Your task to perform on an android device: Open privacy settings Image 0: 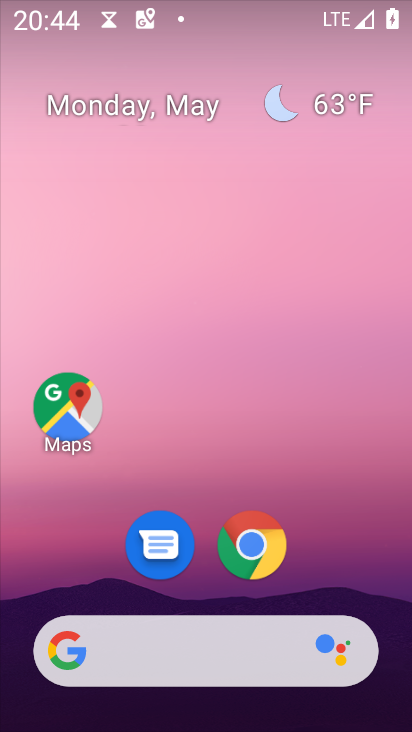
Step 0: drag from (198, 613) to (185, 140)
Your task to perform on an android device: Open privacy settings Image 1: 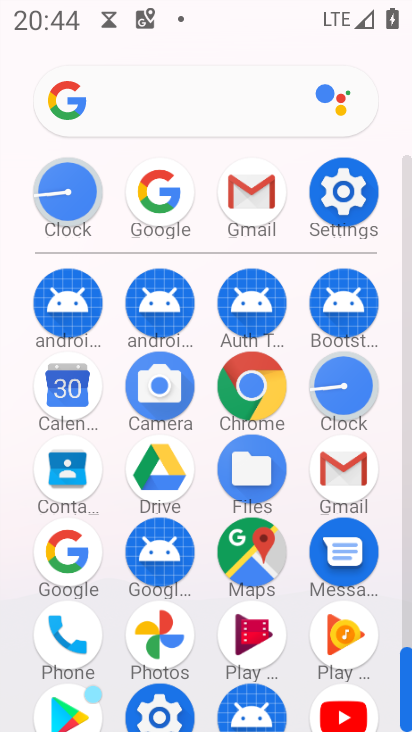
Step 1: click (340, 215)
Your task to perform on an android device: Open privacy settings Image 2: 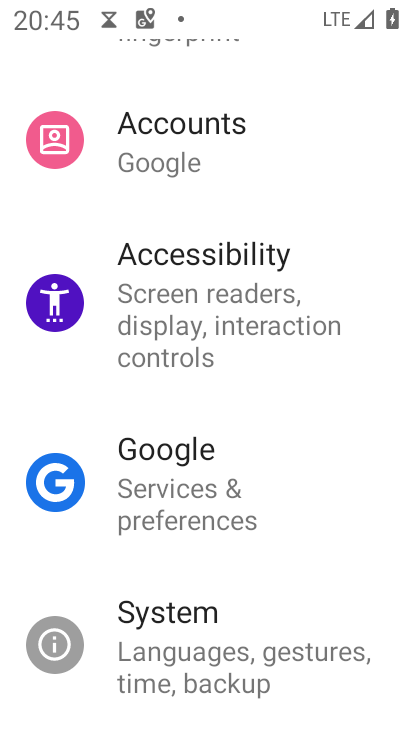
Step 2: drag from (186, 170) to (238, 589)
Your task to perform on an android device: Open privacy settings Image 3: 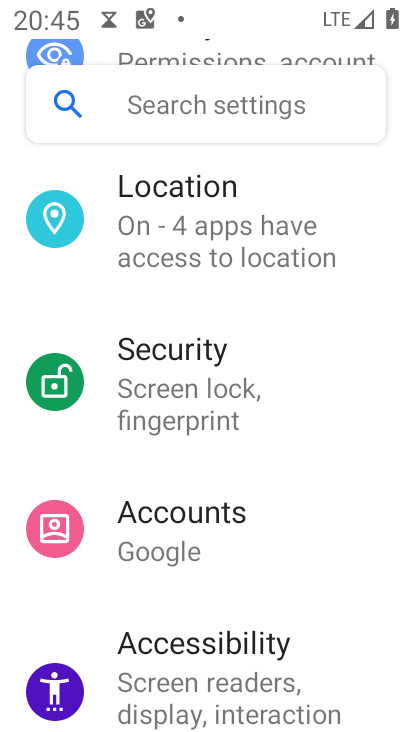
Step 3: drag from (177, 268) to (202, 563)
Your task to perform on an android device: Open privacy settings Image 4: 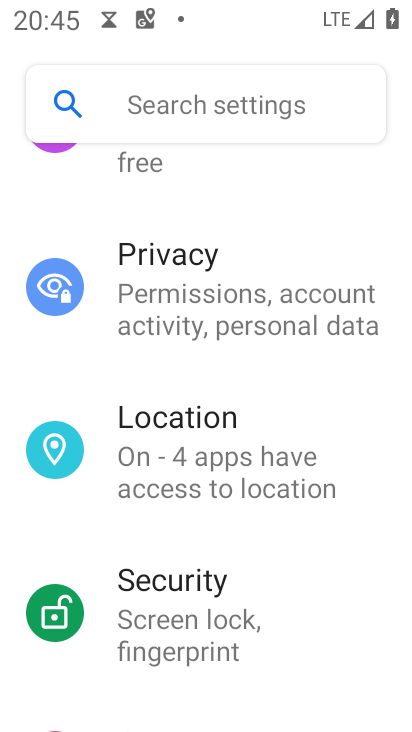
Step 4: click (165, 296)
Your task to perform on an android device: Open privacy settings Image 5: 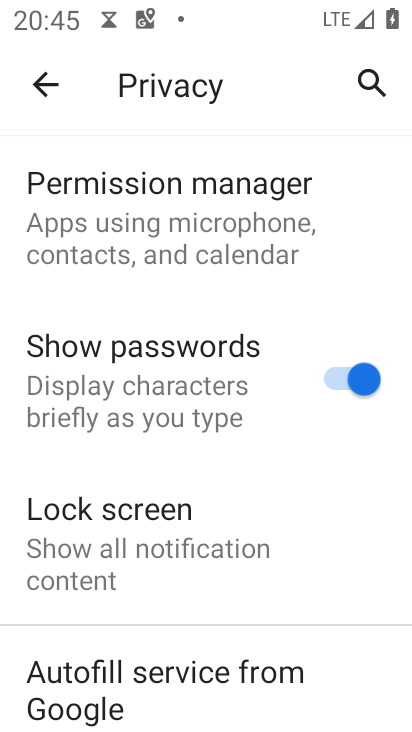
Step 5: task complete